Your task to perform on an android device: turn off priority inbox in the gmail app Image 0: 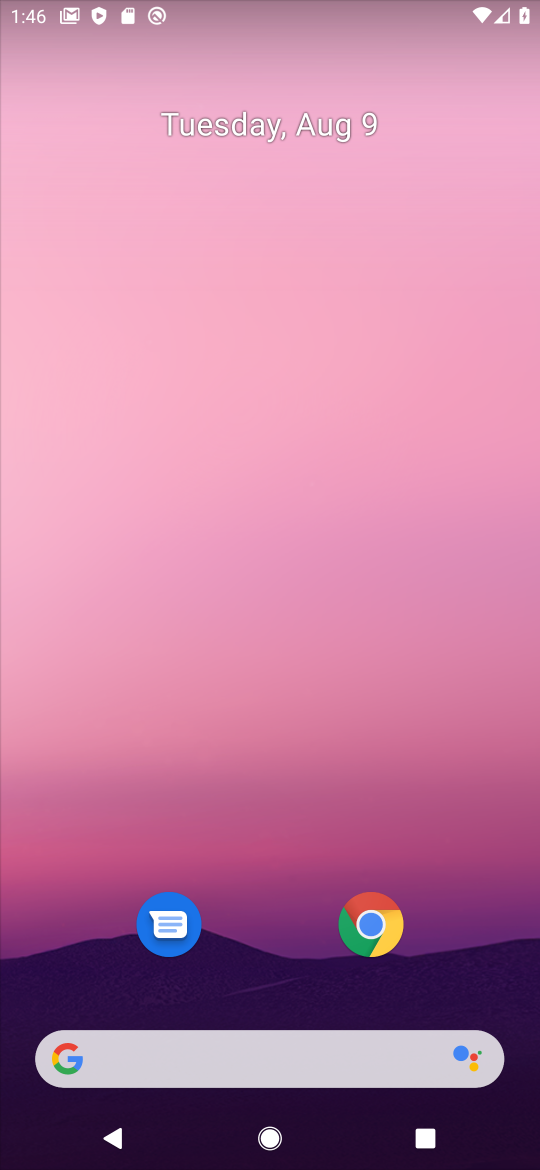
Step 0: drag from (501, 1077) to (374, 108)
Your task to perform on an android device: turn off priority inbox in the gmail app Image 1: 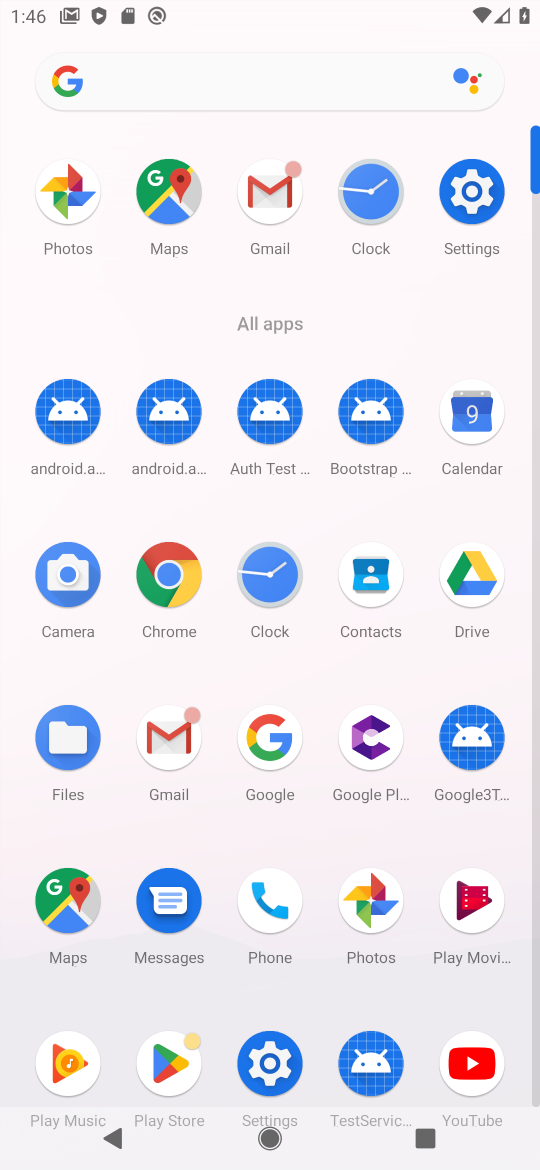
Step 1: click (178, 740)
Your task to perform on an android device: turn off priority inbox in the gmail app Image 2: 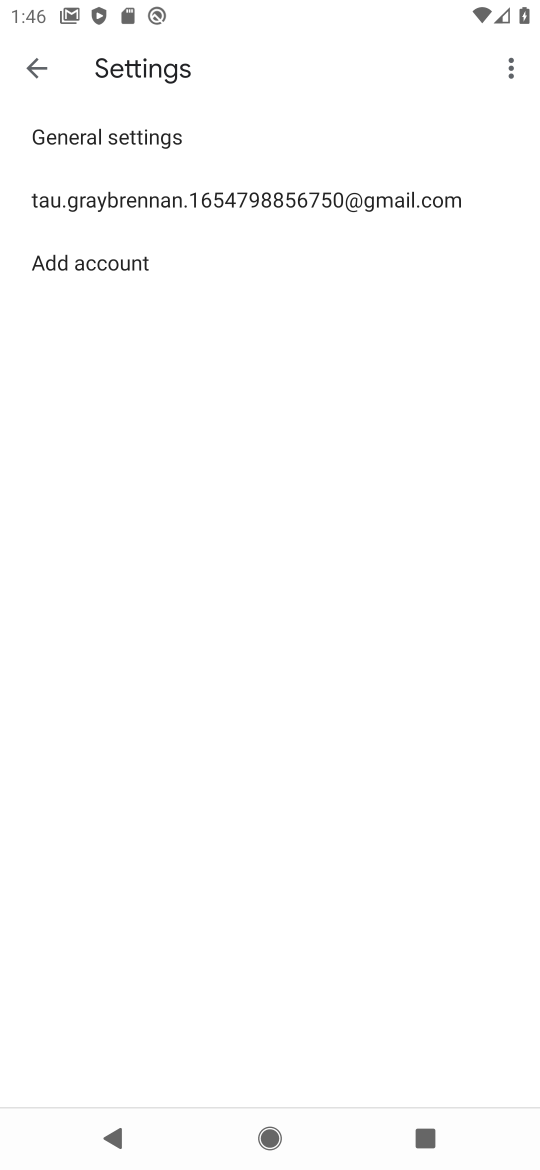
Step 2: click (107, 204)
Your task to perform on an android device: turn off priority inbox in the gmail app Image 3: 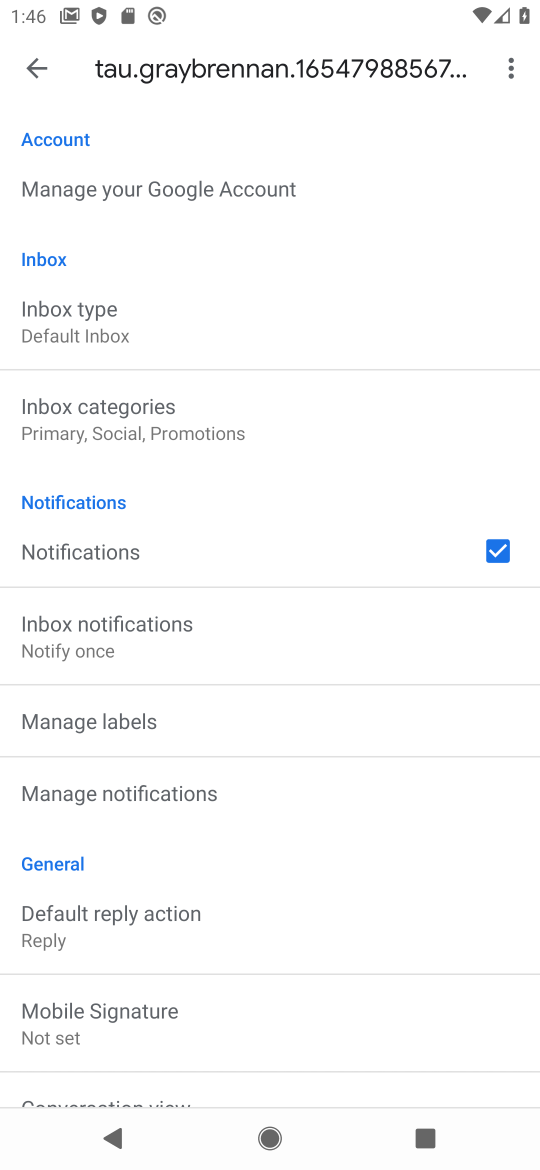
Step 3: click (86, 329)
Your task to perform on an android device: turn off priority inbox in the gmail app Image 4: 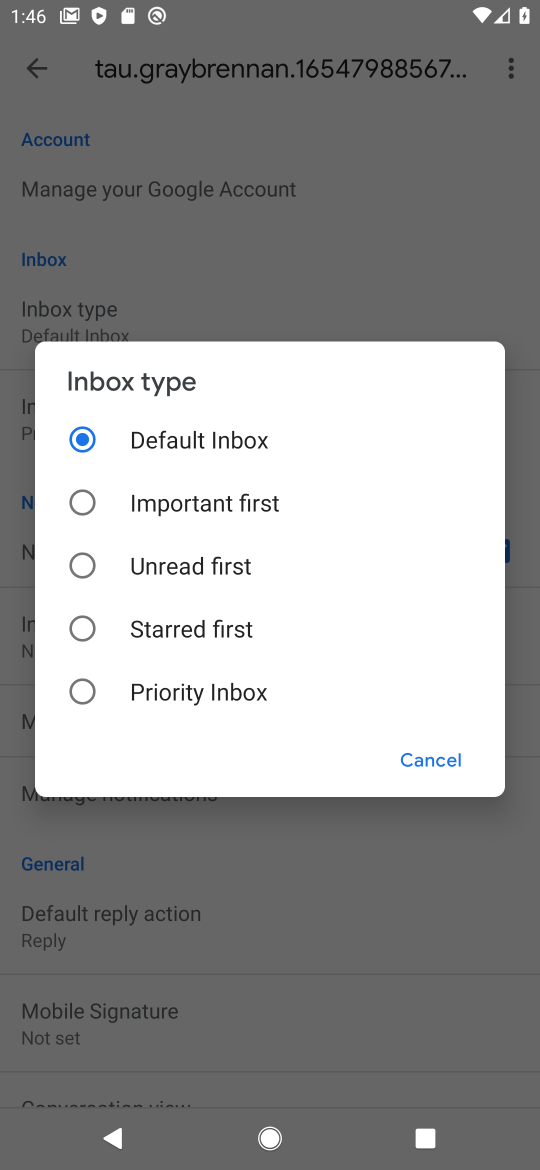
Step 4: task complete